Your task to perform on an android device: turn off javascript in the chrome app Image 0: 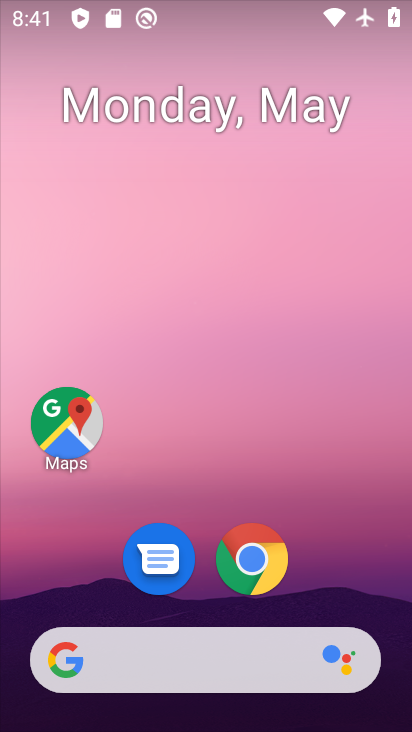
Step 0: click (251, 566)
Your task to perform on an android device: turn off javascript in the chrome app Image 1: 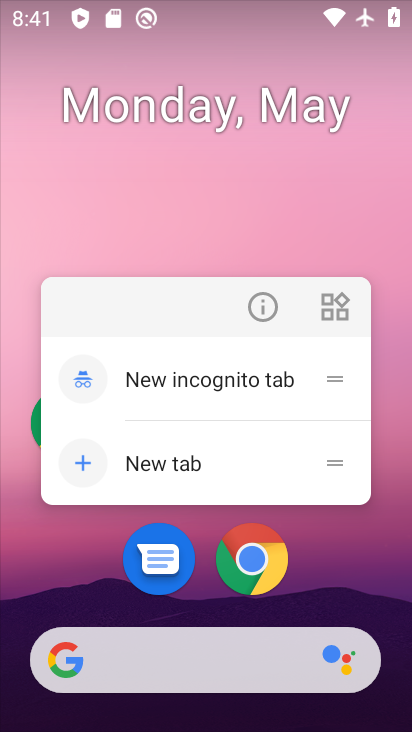
Step 1: click (244, 554)
Your task to perform on an android device: turn off javascript in the chrome app Image 2: 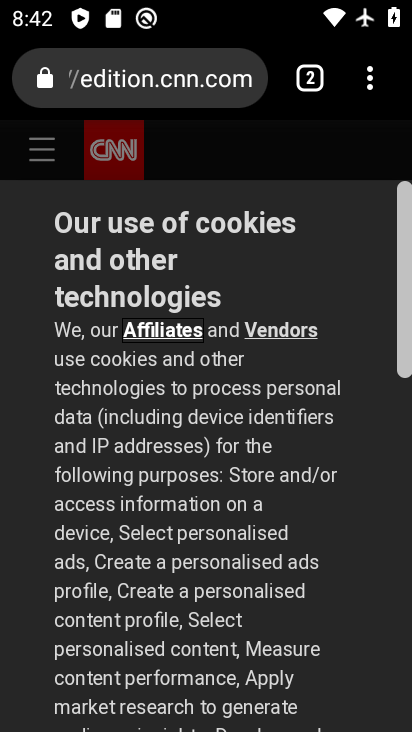
Step 2: click (375, 72)
Your task to perform on an android device: turn off javascript in the chrome app Image 3: 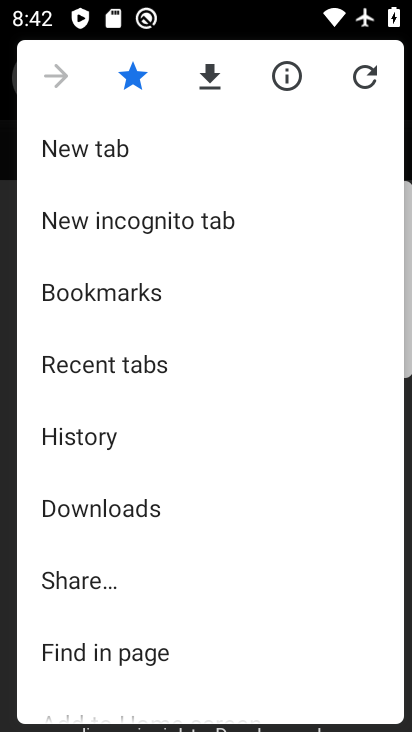
Step 3: drag from (105, 609) to (180, 157)
Your task to perform on an android device: turn off javascript in the chrome app Image 4: 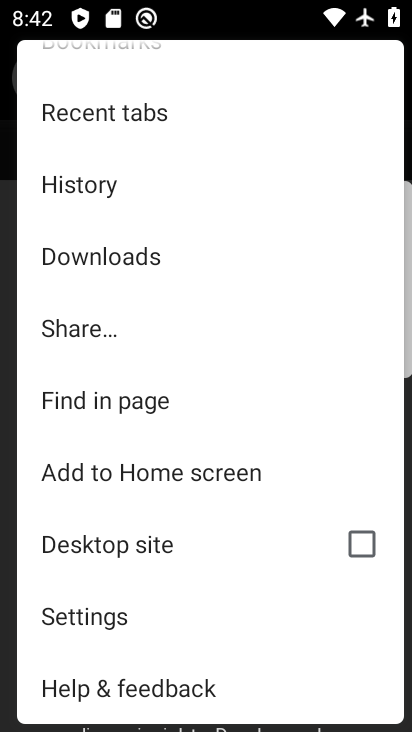
Step 4: click (160, 625)
Your task to perform on an android device: turn off javascript in the chrome app Image 5: 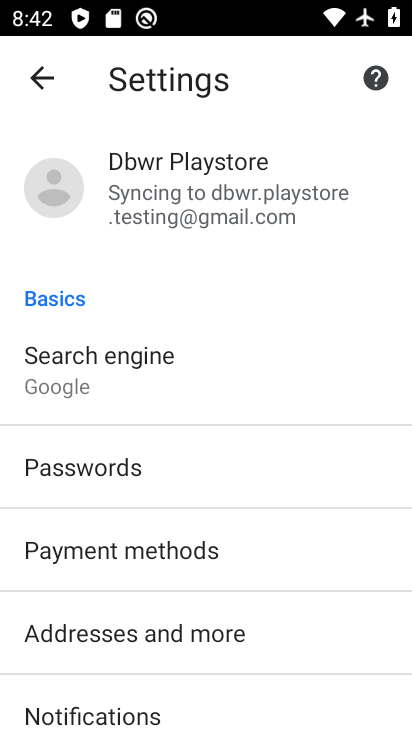
Step 5: drag from (77, 664) to (137, 247)
Your task to perform on an android device: turn off javascript in the chrome app Image 6: 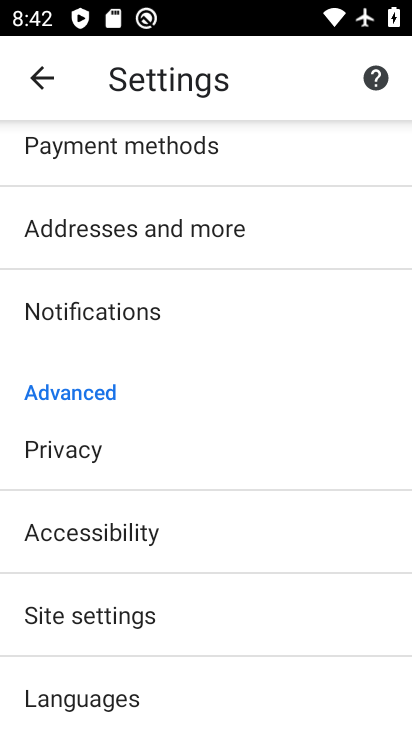
Step 6: click (122, 623)
Your task to perform on an android device: turn off javascript in the chrome app Image 7: 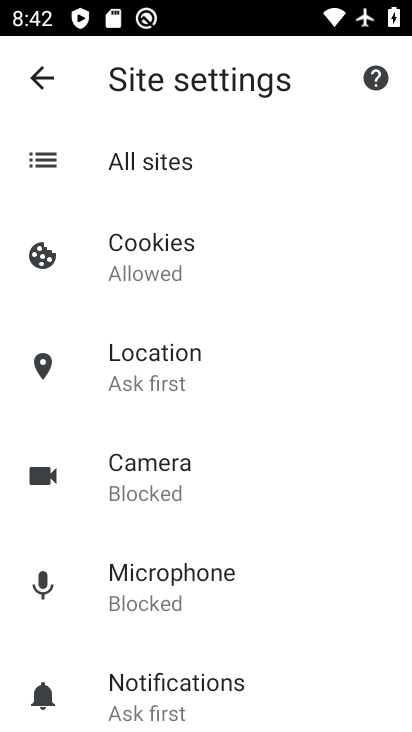
Step 7: drag from (293, 599) to (279, 288)
Your task to perform on an android device: turn off javascript in the chrome app Image 8: 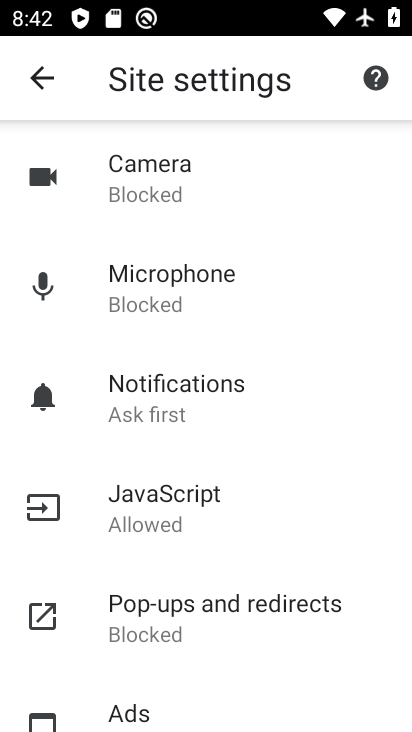
Step 8: click (219, 505)
Your task to perform on an android device: turn off javascript in the chrome app Image 9: 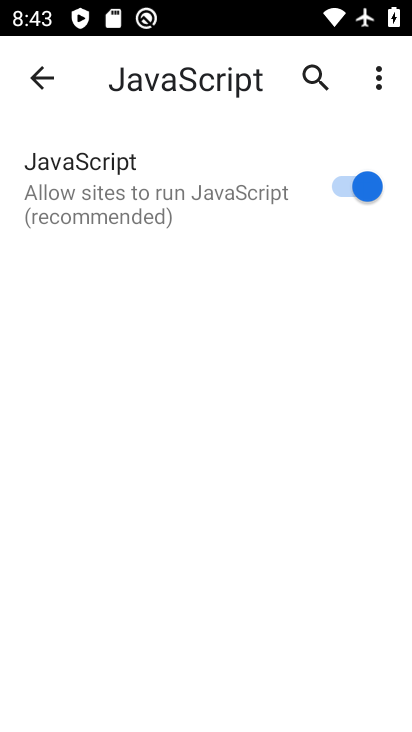
Step 9: click (367, 169)
Your task to perform on an android device: turn off javascript in the chrome app Image 10: 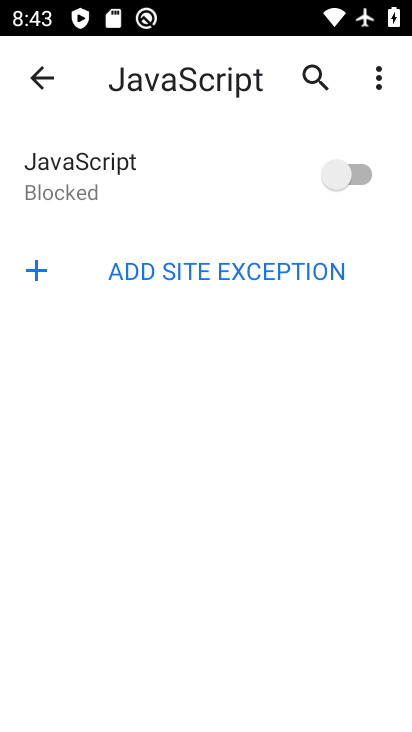
Step 10: task complete